Your task to perform on an android device: open app "LinkedIn" Image 0: 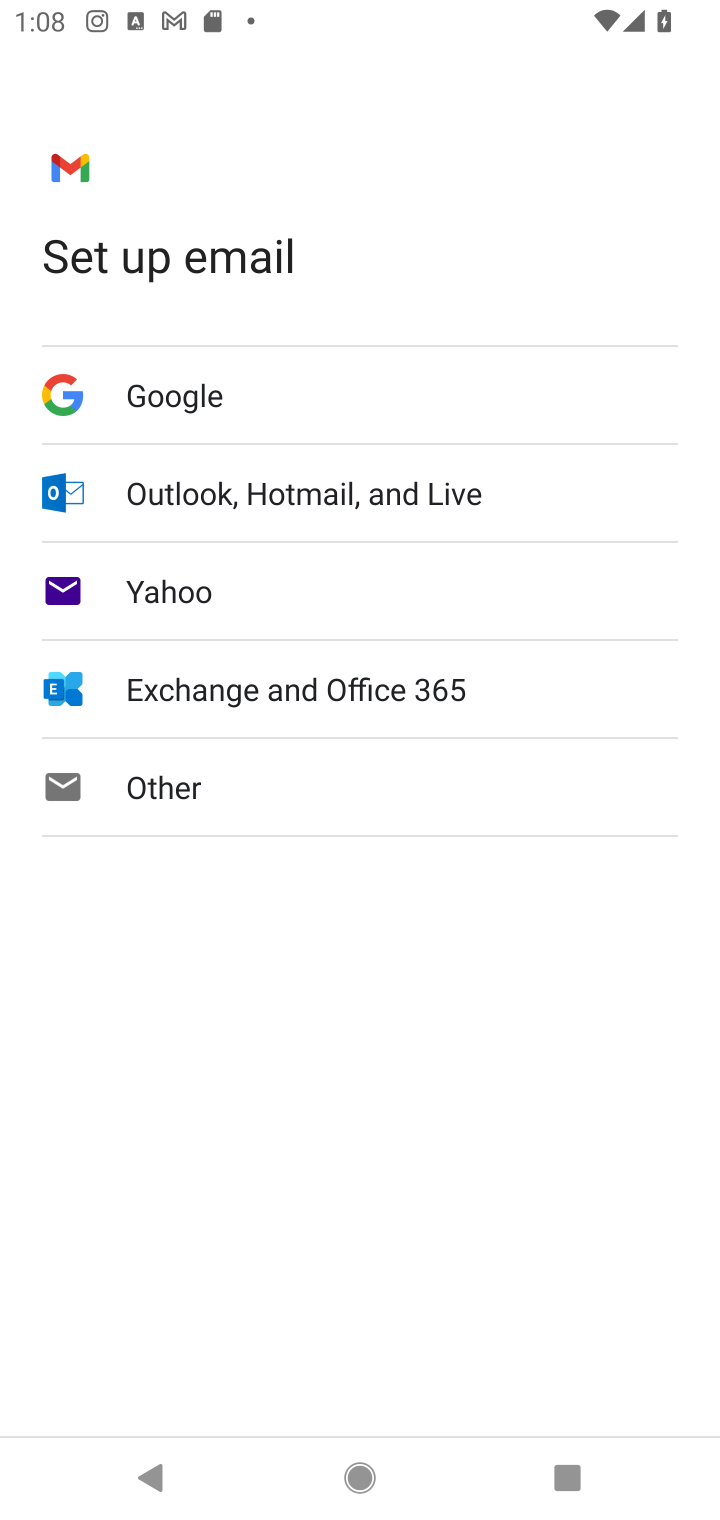
Step 0: type "LinkedIn"
Your task to perform on an android device: open app "LinkedIn" Image 1: 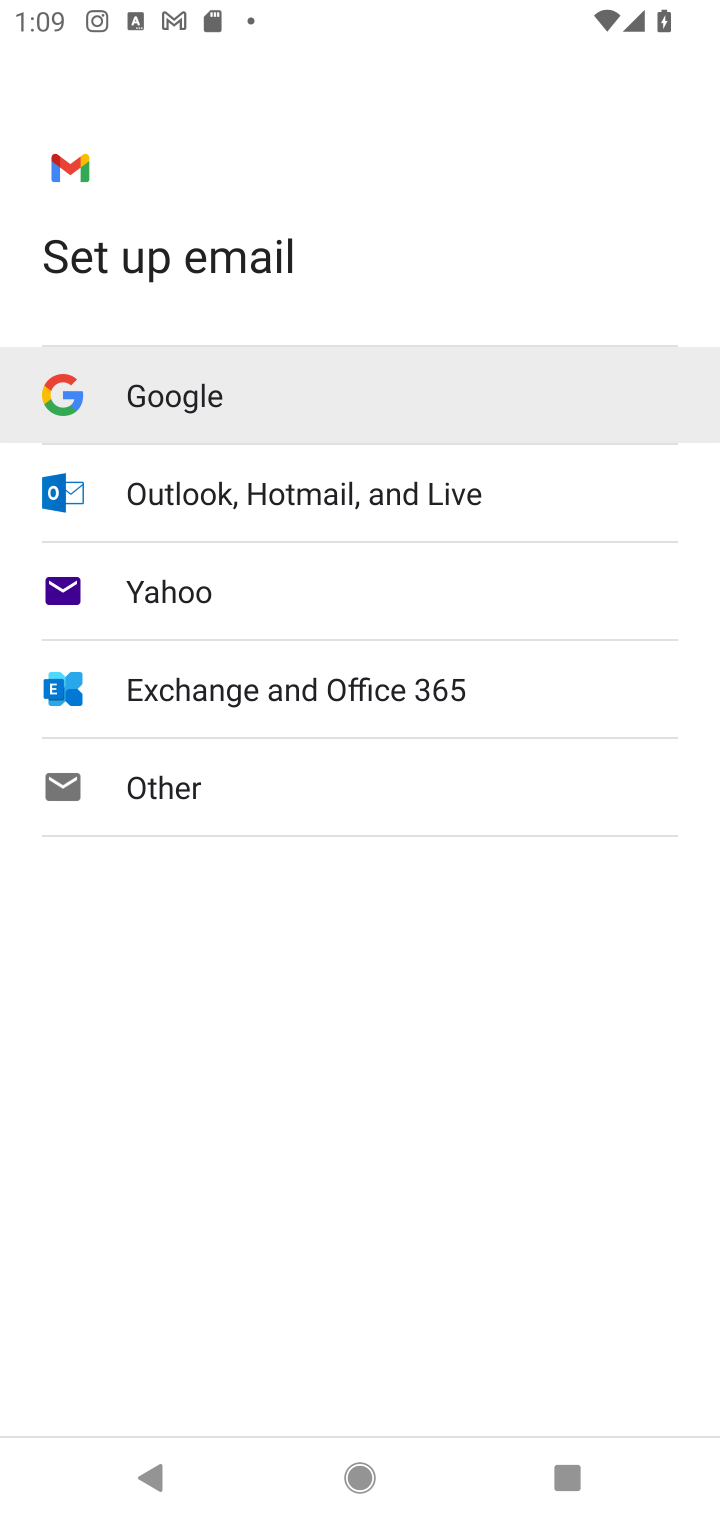
Step 1: press home button
Your task to perform on an android device: open app "LinkedIn" Image 2: 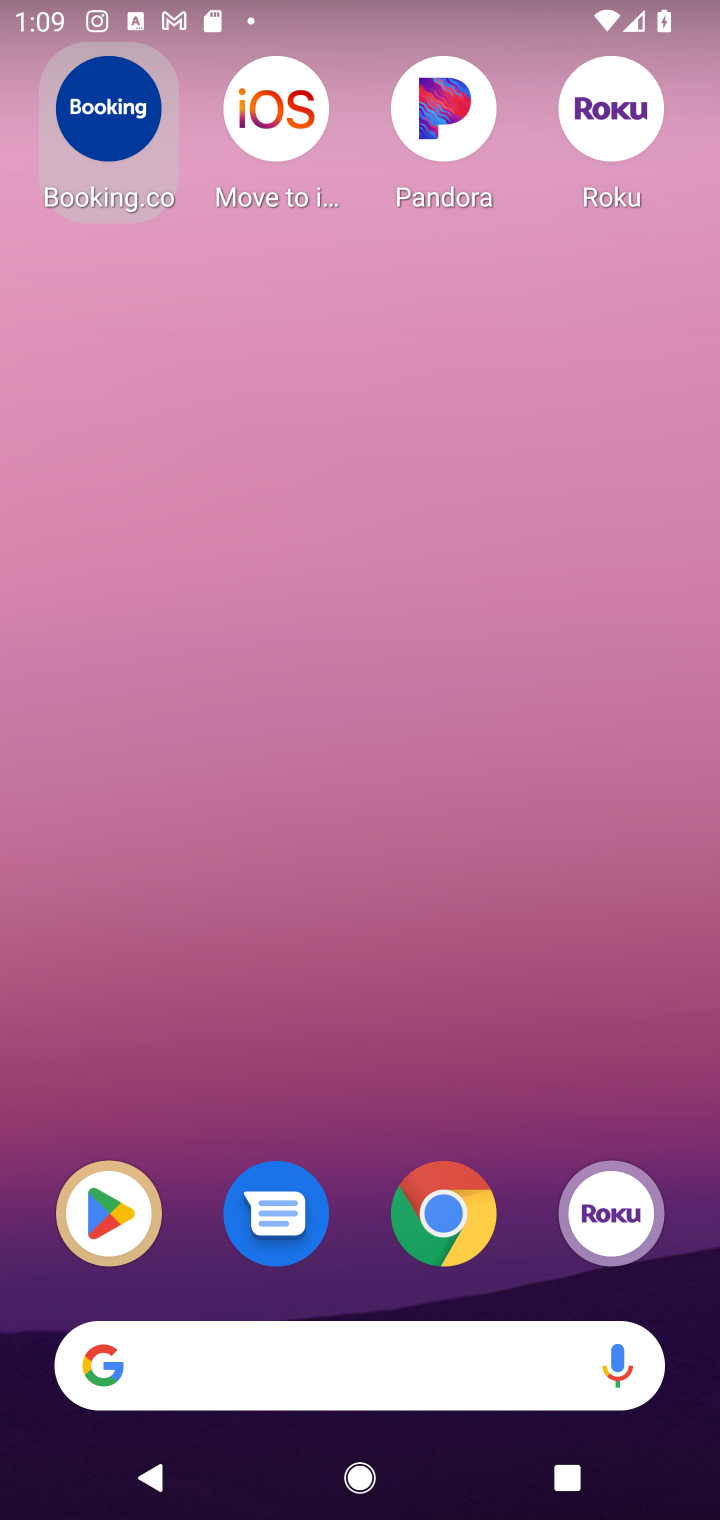
Step 2: click (114, 1212)
Your task to perform on an android device: open app "LinkedIn" Image 3: 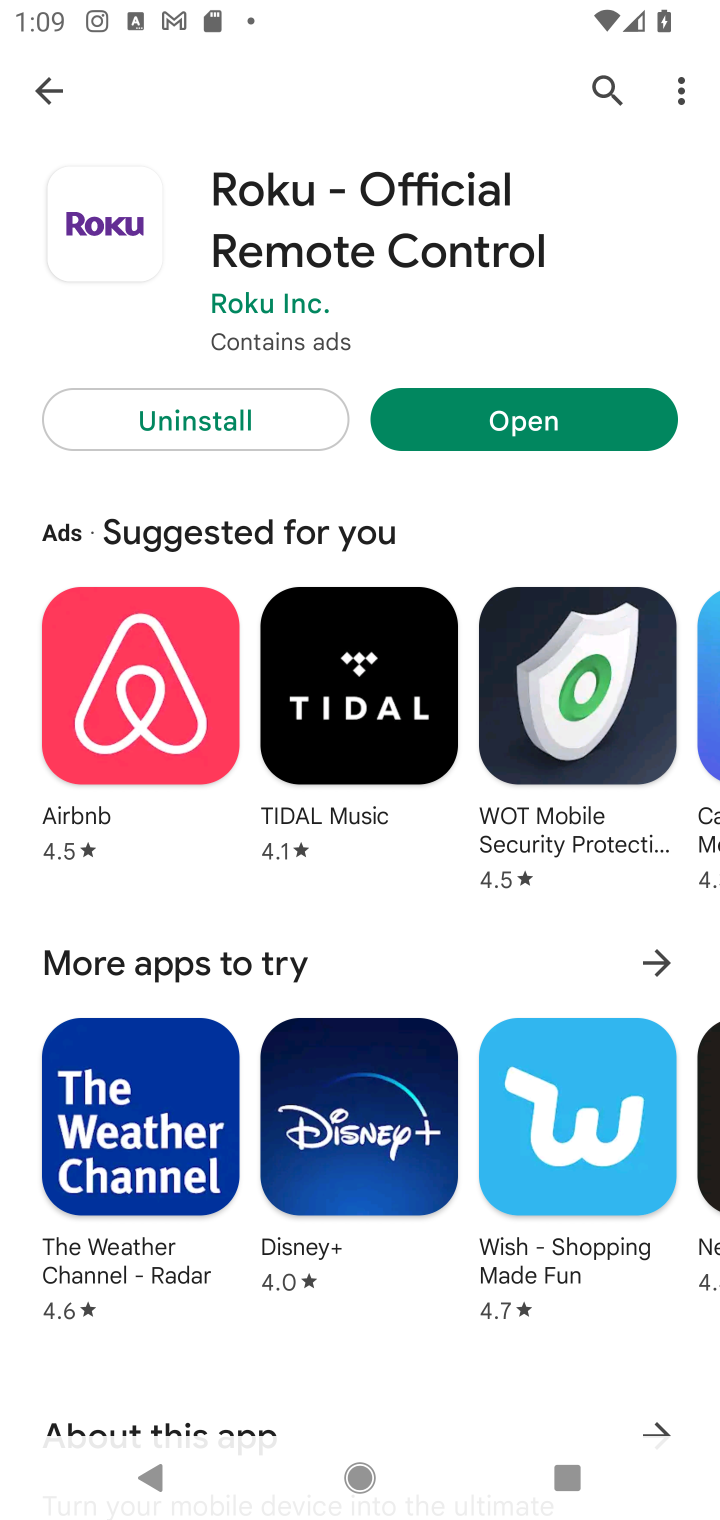
Step 3: click (32, 91)
Your task to perform on an android device: open app "LinkedIn" Image 4: 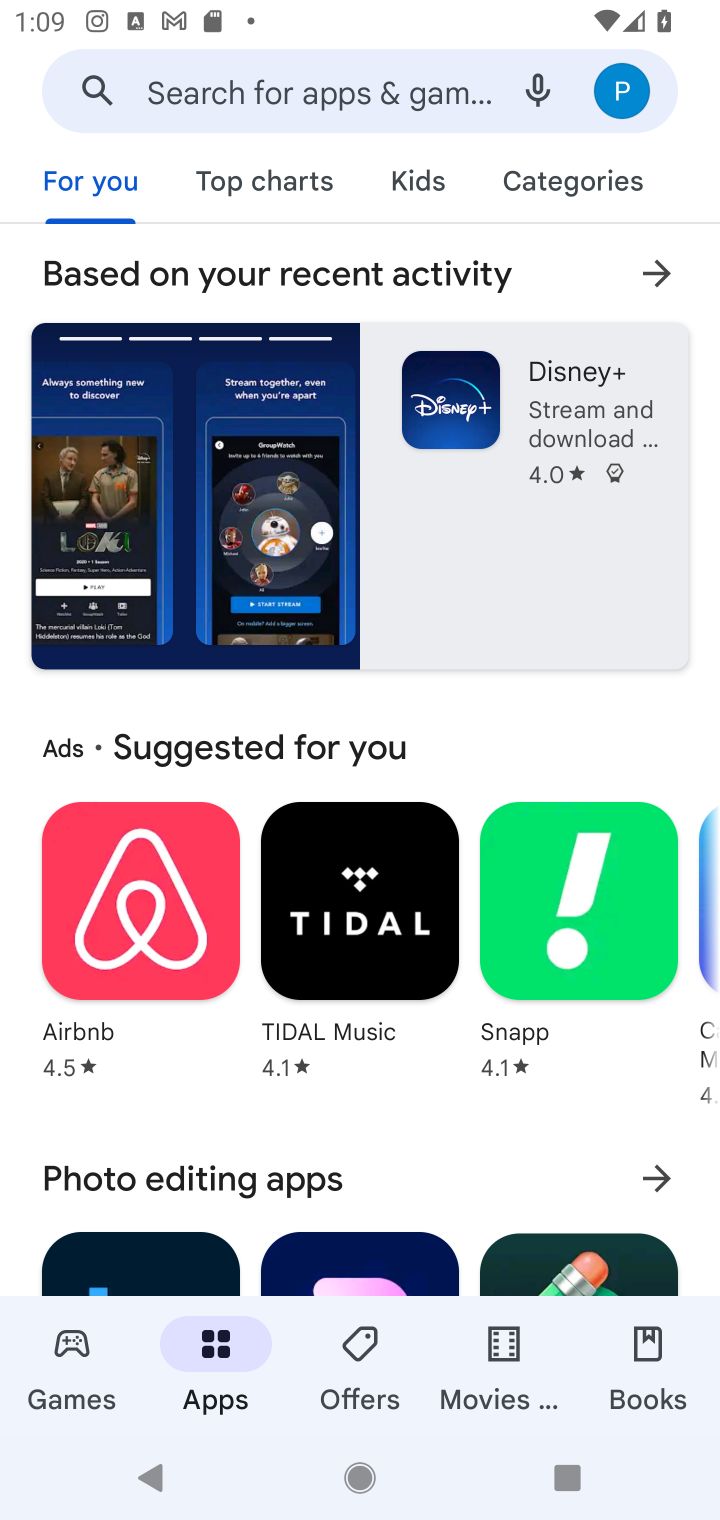
Step 4: type "LinkedIn"
Your task to perform on an android device: open app "LinkedIn" Image 5: 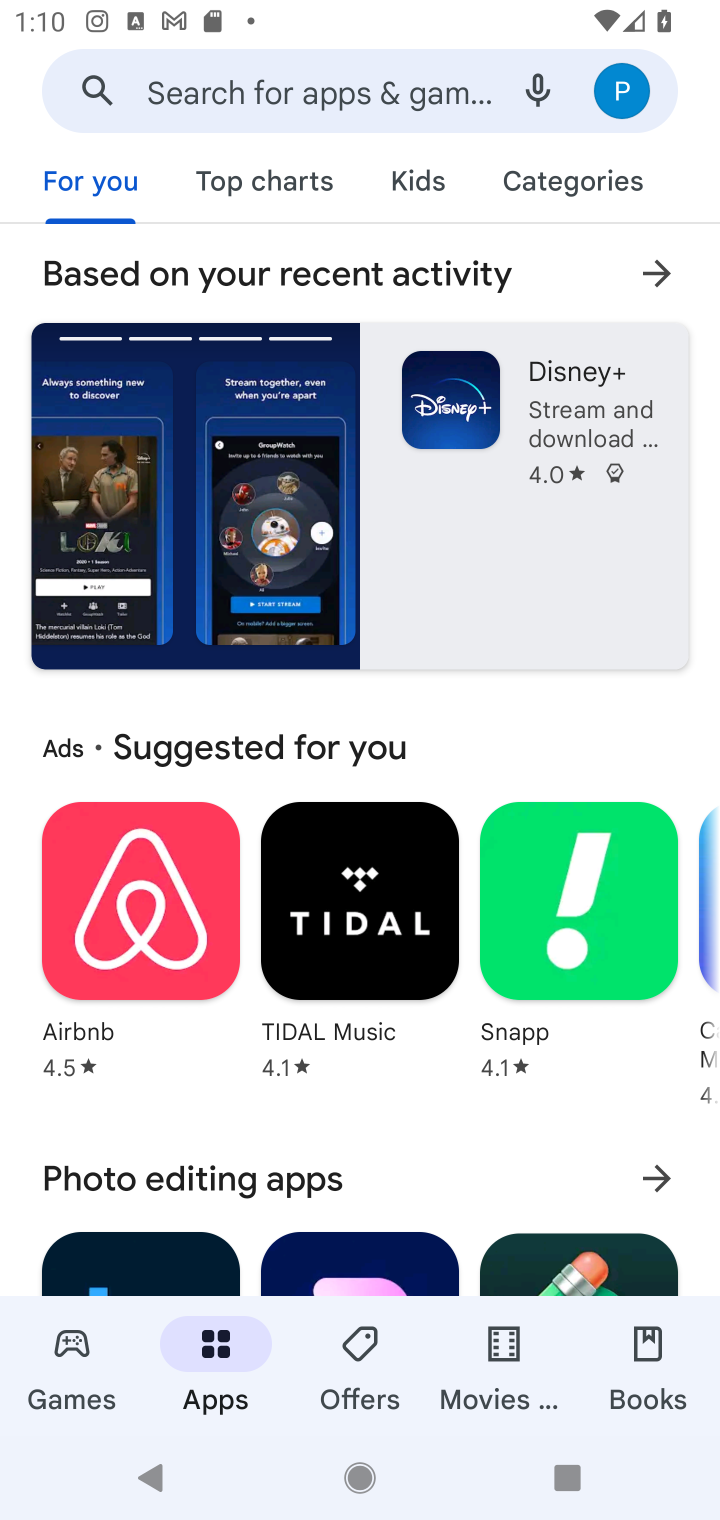
Step 5: click (298, 123)
Your task to perform on an android device: open app "LinkedIn" Image 6: 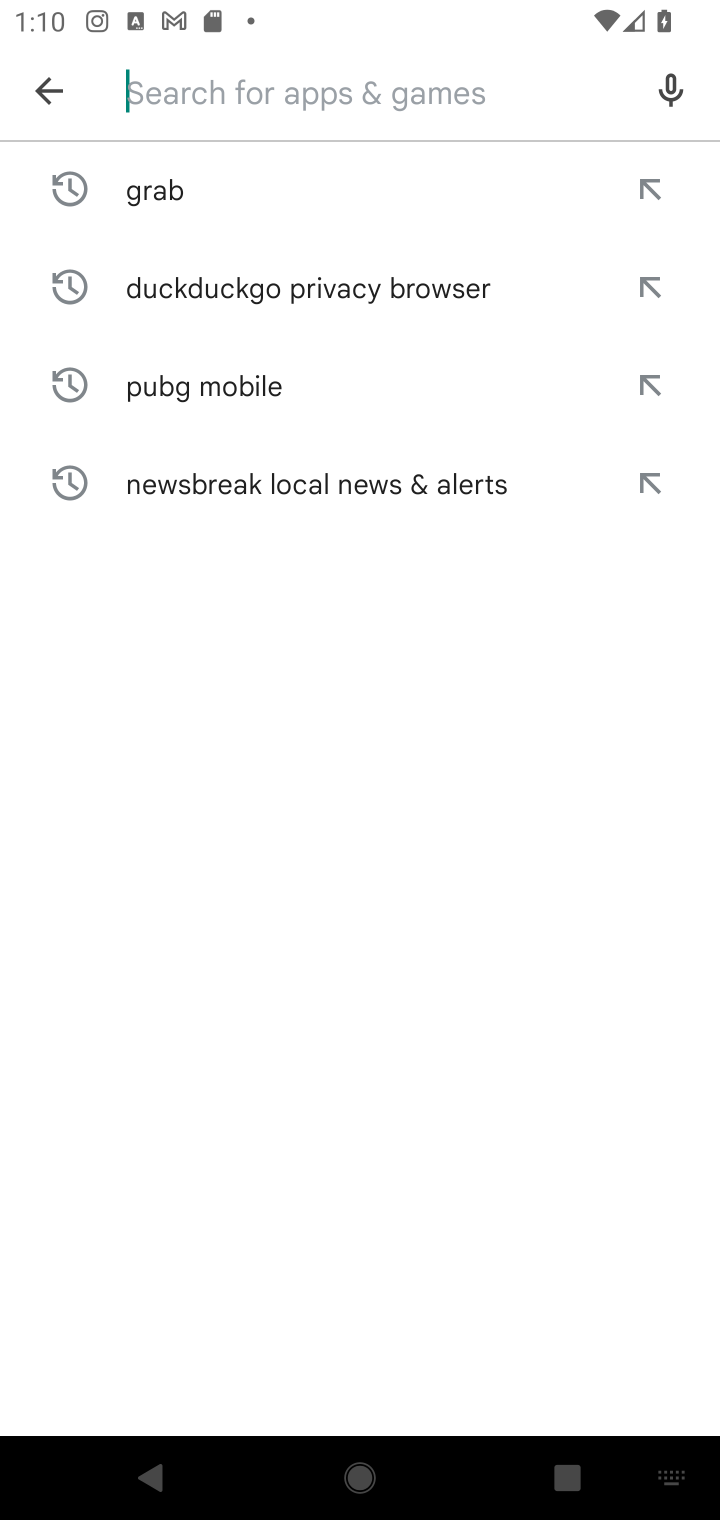
Step 6: type "LinkedIn"
Your task to perform on an android device: open app "LinkedIn" Image 7: 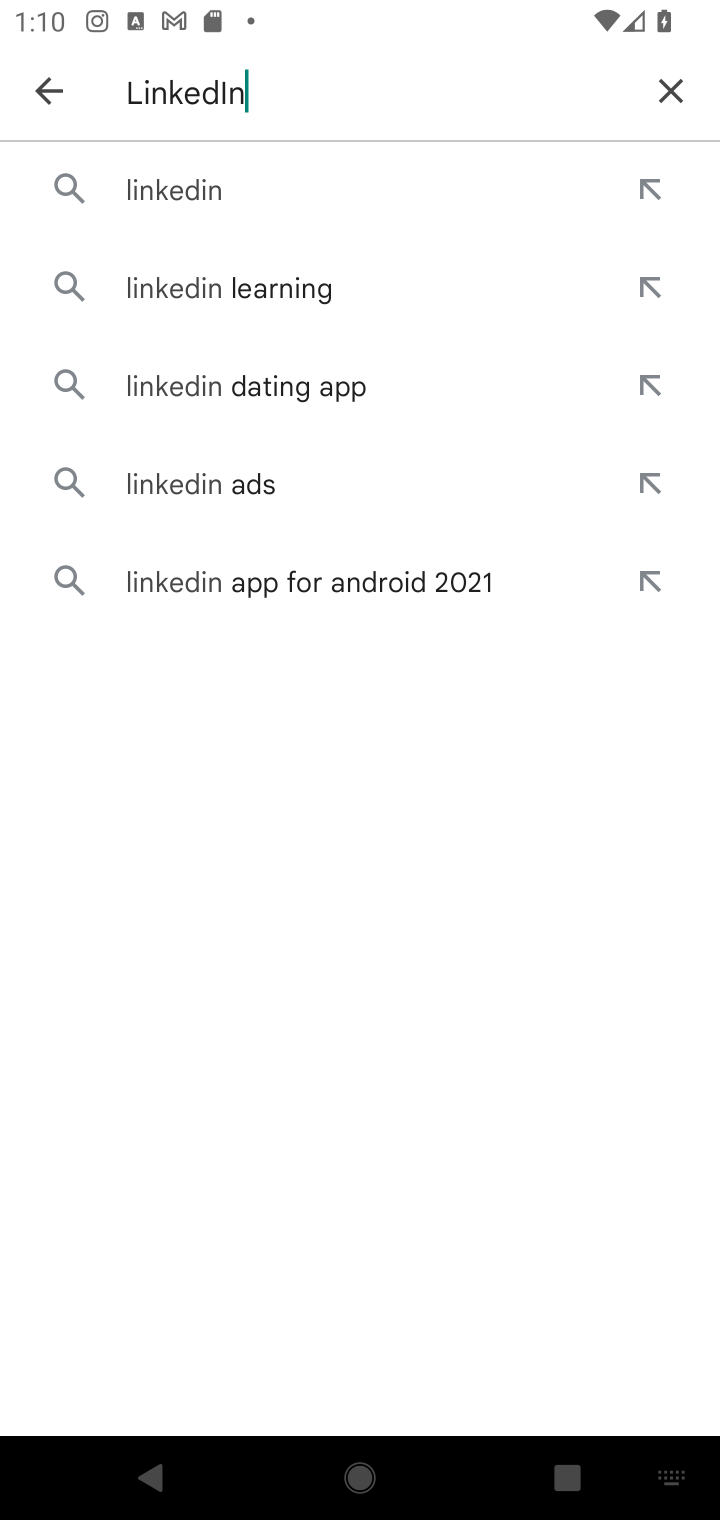
Step 7: click (152, 173)
Your task to perform on an android device: open app "LinkedIn" Image 8: 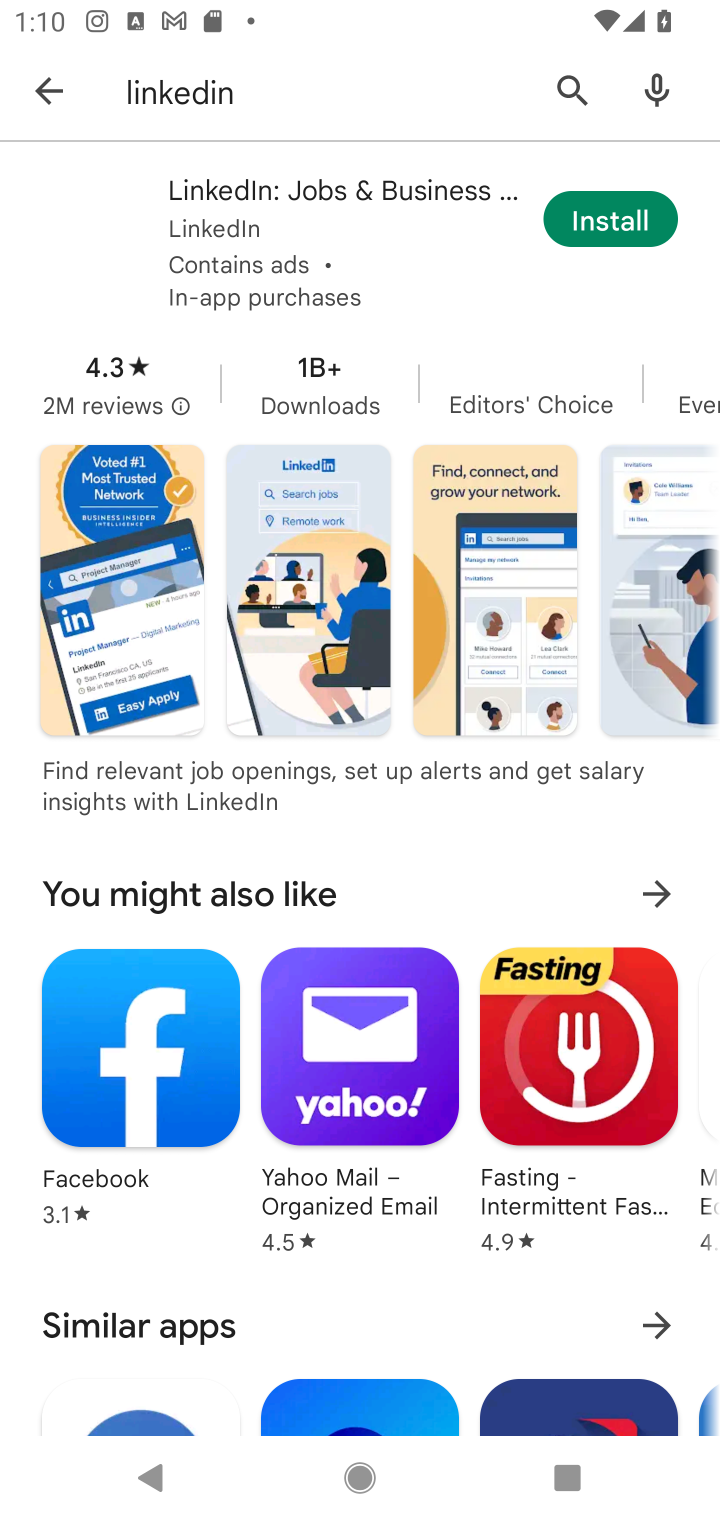
Step 8: click (664, 226)
Your task to perform on an android device: open app "LinkedIn" Image 9: 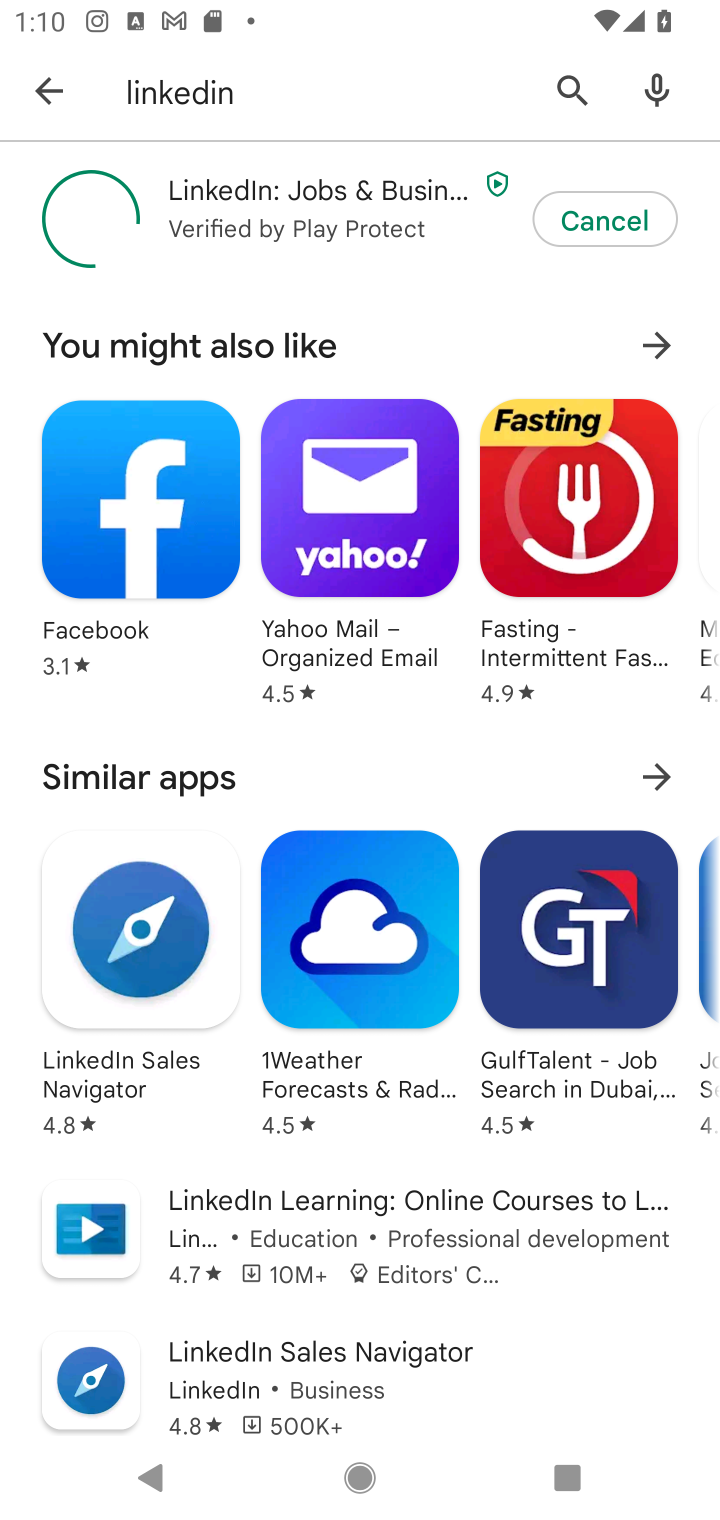
Step 9: task complete